Your task to perform on an android device: Open ESPN.com Image 0: 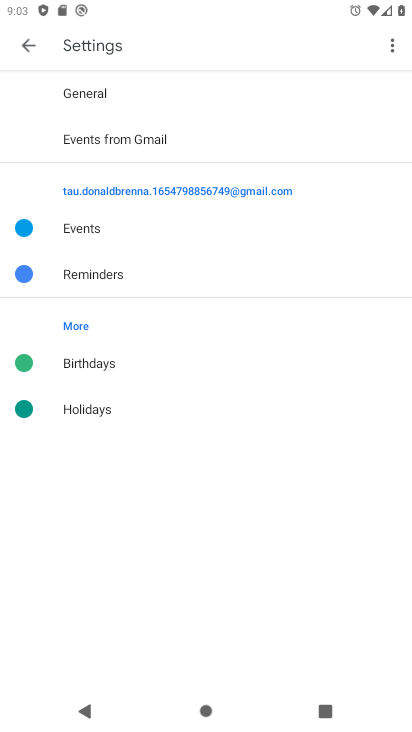
Step 0: press home button
Your task to perform on an android device: Open ESPN.com Image 1: 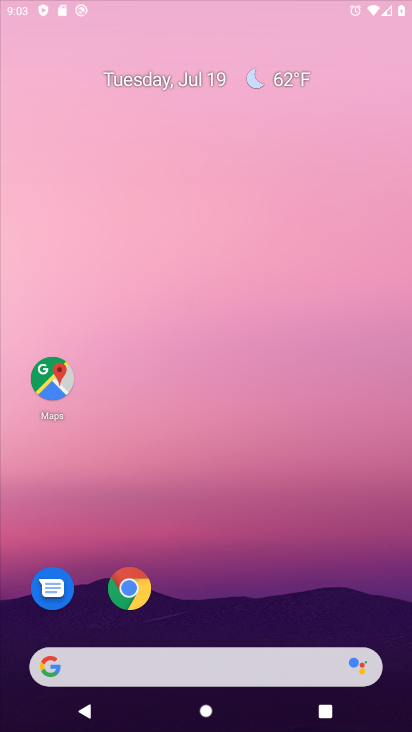
Step 1: drag from (355, 555) to (352, 88)
Your task to perform on an android device: Open ESPN.com Image 2: 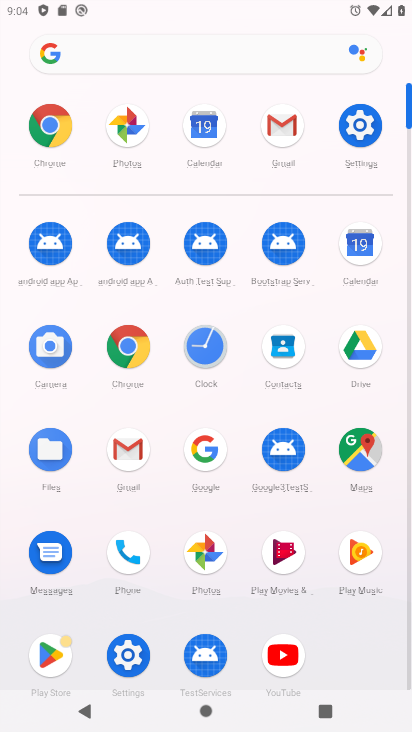
Step 2: click (51, 133)
Your task to perform on an android device: Open ESPN.com Image 3: 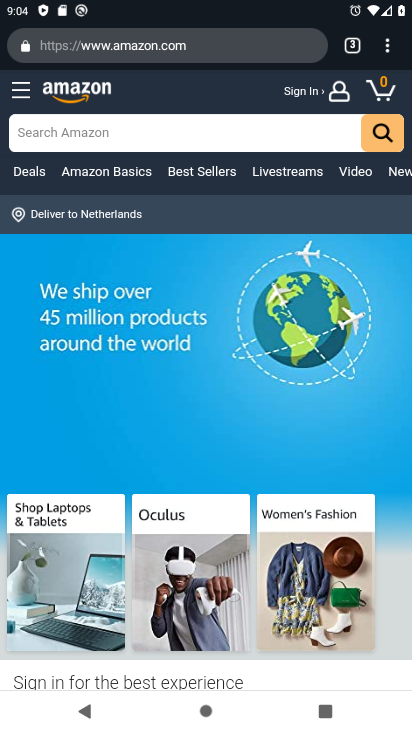
Step 3: press back button
Your task to perform on an android device: Open ESPN.com Image 4: 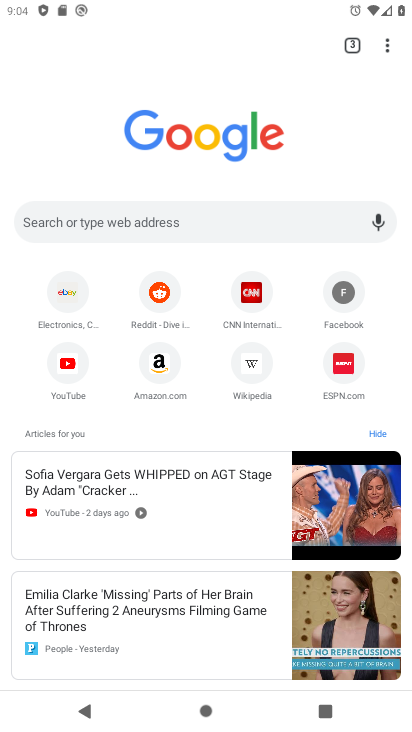
Step 4: click (332, 380)
Your task to perform on an android device: Open ESPN.com Image 5: 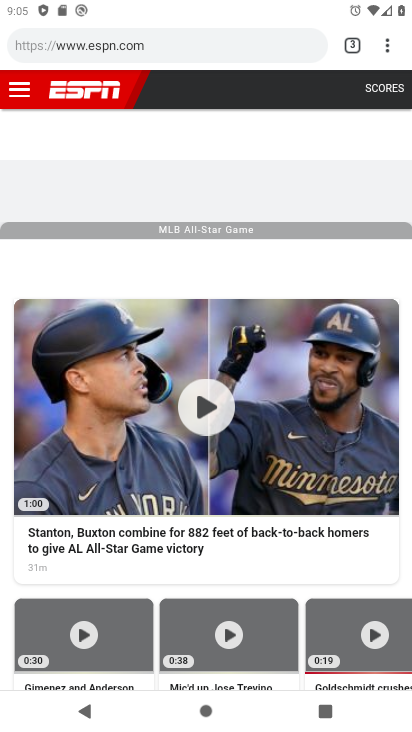
Step 5: task complete